Your task to perform on an android device: search for starred emails in the gmail app Image 0: 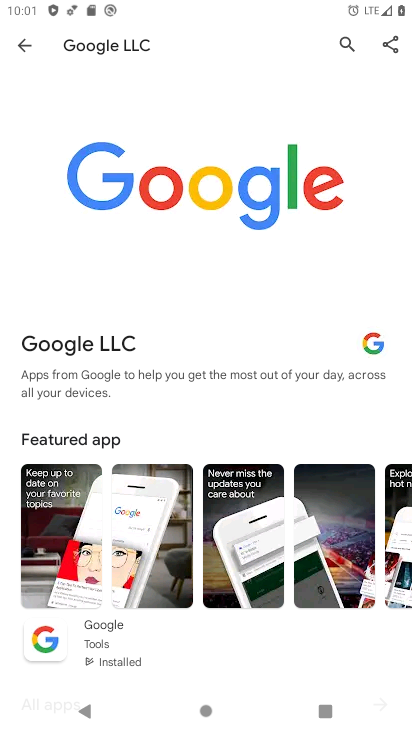
Step 0: click (25, 34)
Your task to perform on an android device: search for starred emails in the gmail app Image 1: 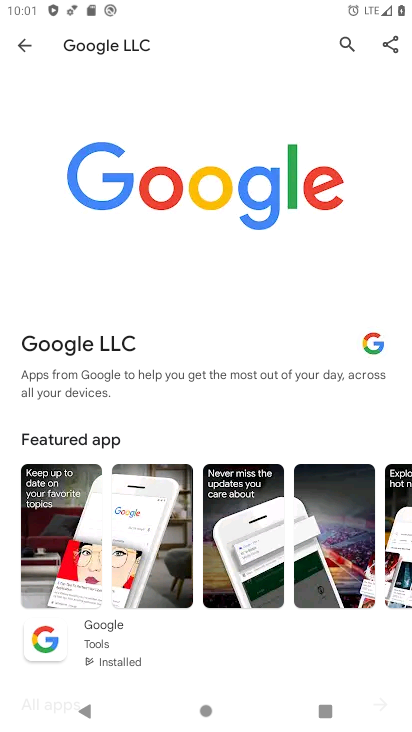
Step 1: click (23, 49)
Your task to perform on an android device: search for starred emails in the gmail app Image 2: 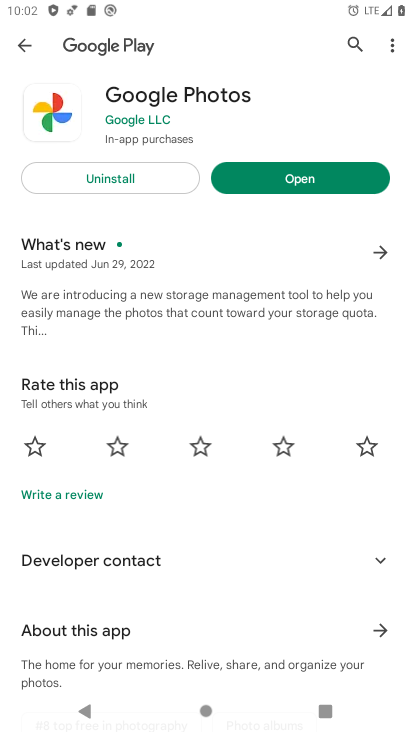
Step 2: press home button
Your task to perform on an android device: search for starred emails in the gmail app Image 3: 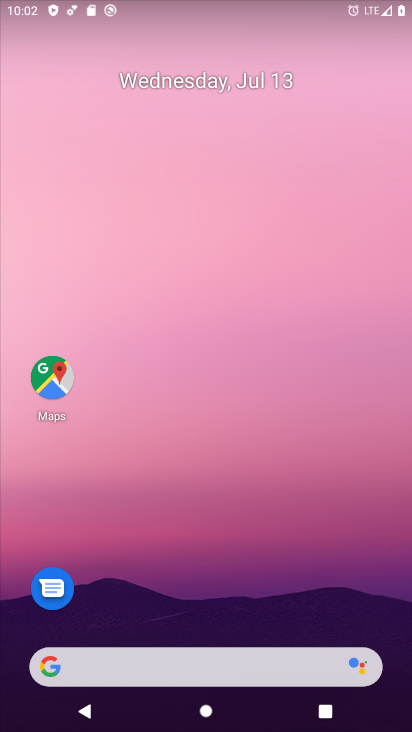
Step 3: drag from (152, 573) to (204, 15)
Your task to perform on an android device: search for starred emails in the gmail app Image 4: 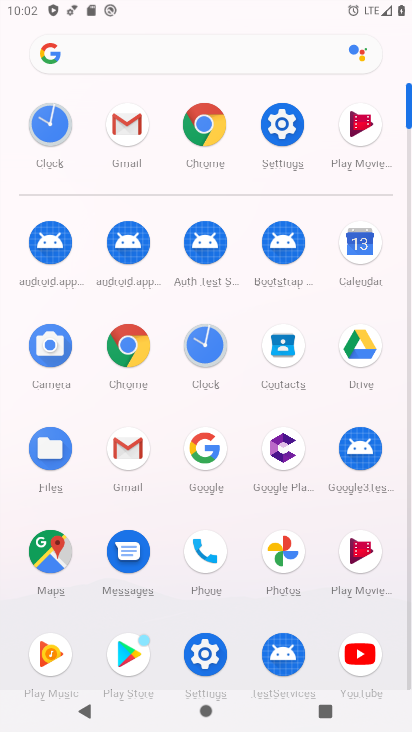
Step 4: click (134, 117)
Your task to perform on an android device: search for starred emails in the gmail app Image 5: 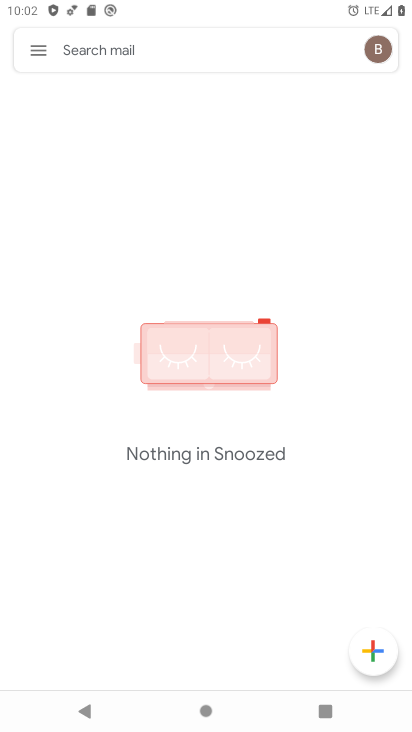
Step 5: click (46, 47)
Your task to perform on an android device: search for starred emails in the gmail app Image 6: 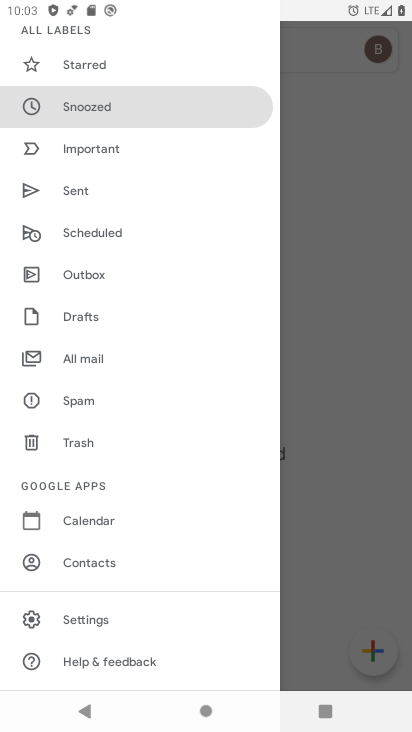
Step 6: click (114, 62)
Your task to perform on an android device: search for starred emails in the gmail app Image 7: 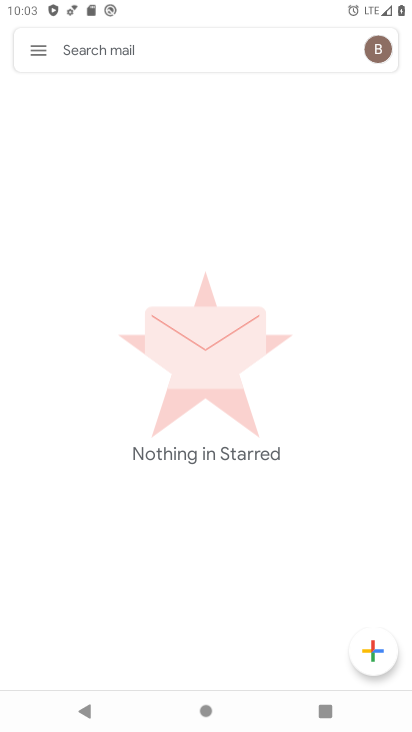
Step 7: task complete